Your task to perform on an android device: Search for vegetarian restaurants on Maps Image 0: 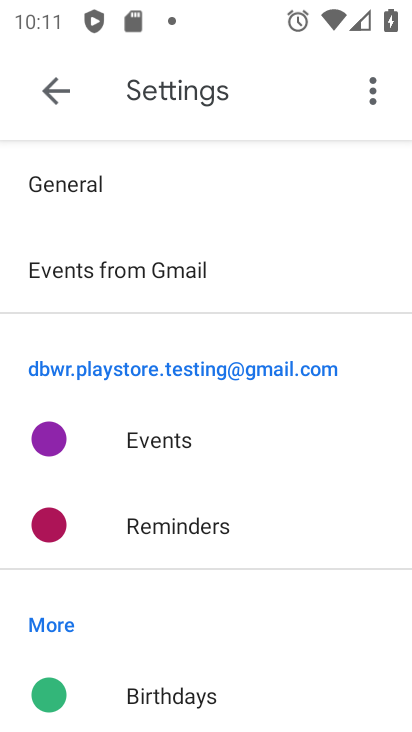
Step 0: press back button
Your task to perform on an android device: Search for vegetarian restaurants on Maps Image 1: 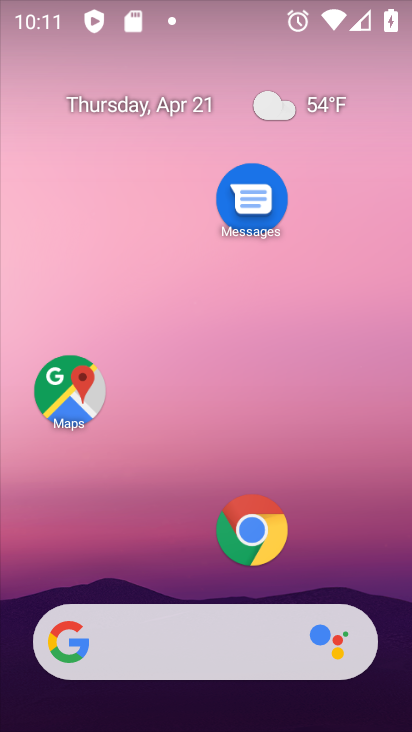
Step 1: click (64, 398)
Your task to perform on an android device: Search for vegetarian restaurants on Maps Image 2: 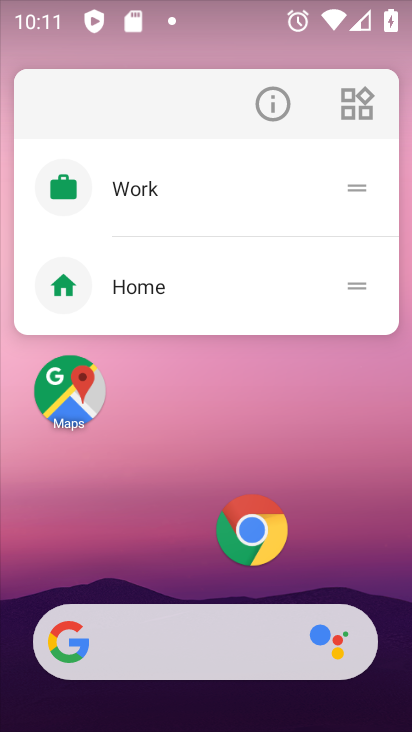
Step 2: click (64, 408)
Your task to perform on an android device: Search for vegetarian restaurants on Maps Image 3: 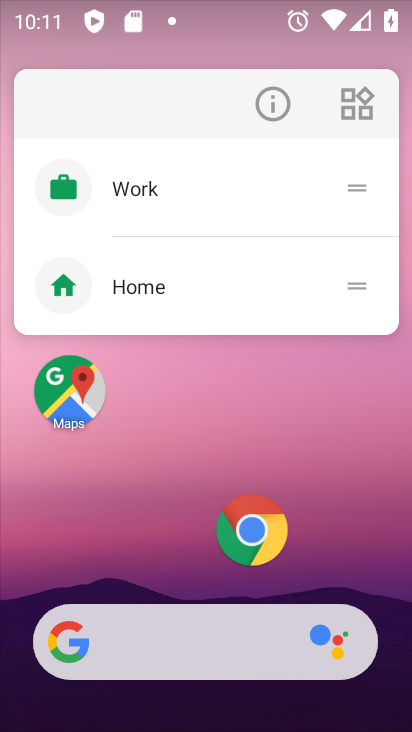
Step 3: click (82, 401)
Your task to perform on an android device: Search for vegetarian restaurants on Maps Image 4: 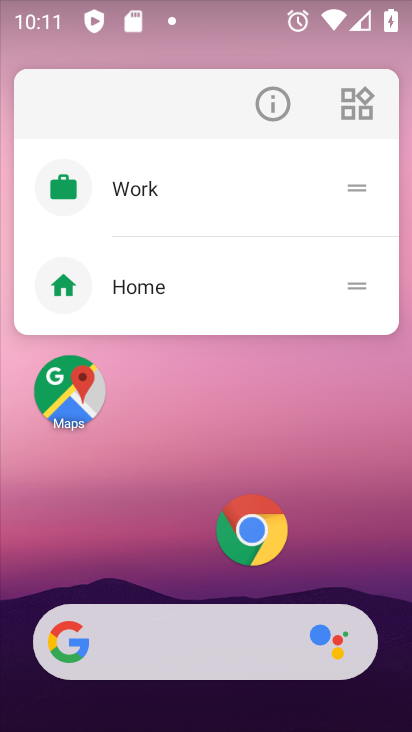
Step 4: click (76, 398)
Your task to perform on an android device: Search for vegetarian restaurants on Maps Image 5: 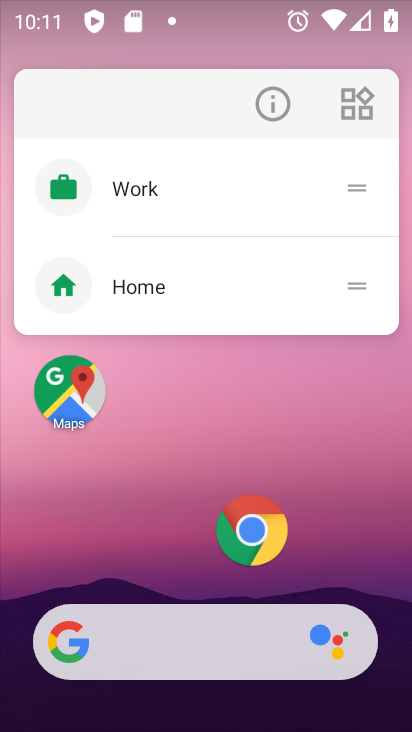
Step 5: click (82, 392)
Your task to perform on an android device: Search for vegetarian restaurants on Maps Image 6: 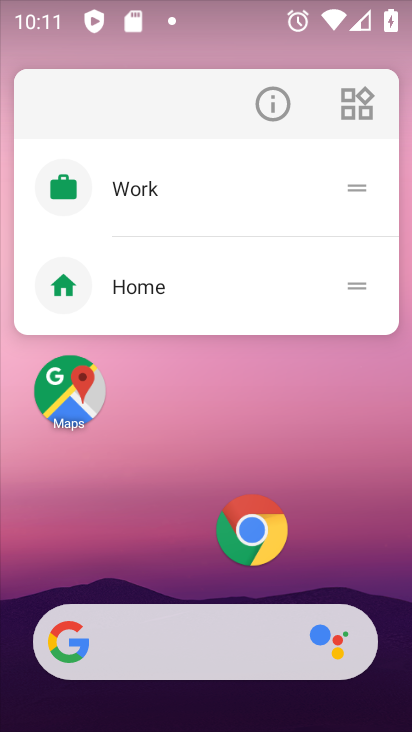
Step 6: click (84, 390)
Your task to perform on an android device: Search for vegetarian restaurants on Maps Image 7: 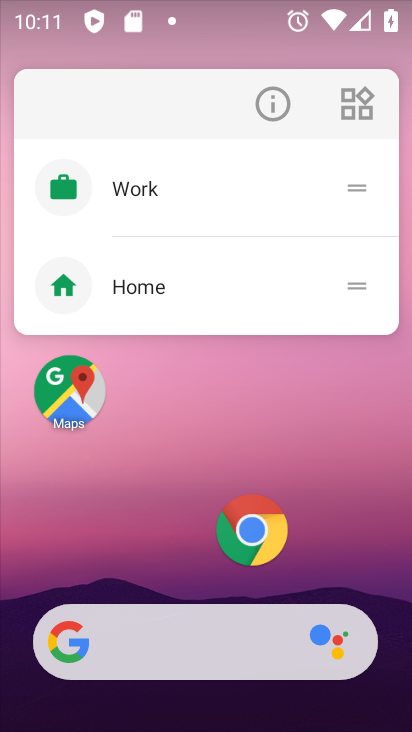
Step 7: drag from (135, 581) to (349, 4)
Your task to perform on an android device: Search for vegetarian restaurants on Maps Image 8: 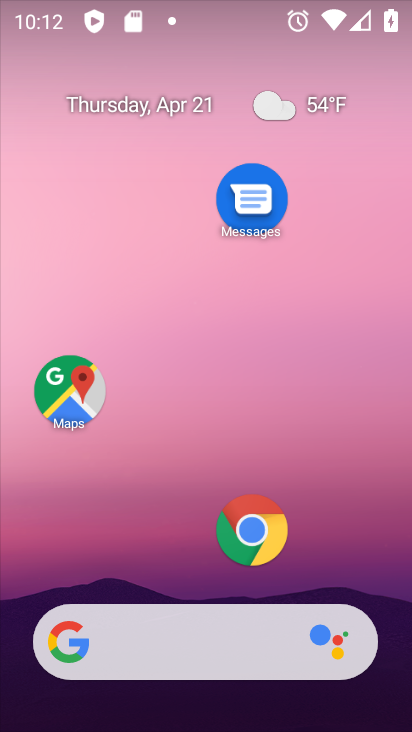
Step 8: drag from (142, 599) to (224, 83)
Your task to perform on an android device: Search for vegetarian restaurants on Maps Image 9: 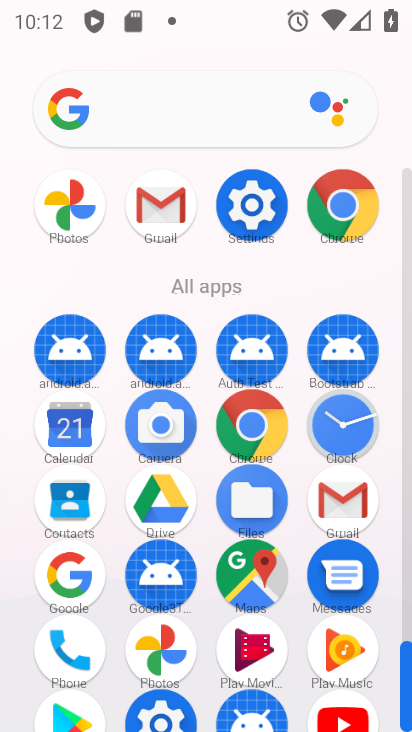
Step 9: click (270, 566)
Your task to perform on an android device: Search for vegetarian restaurants on Maps Image 10: 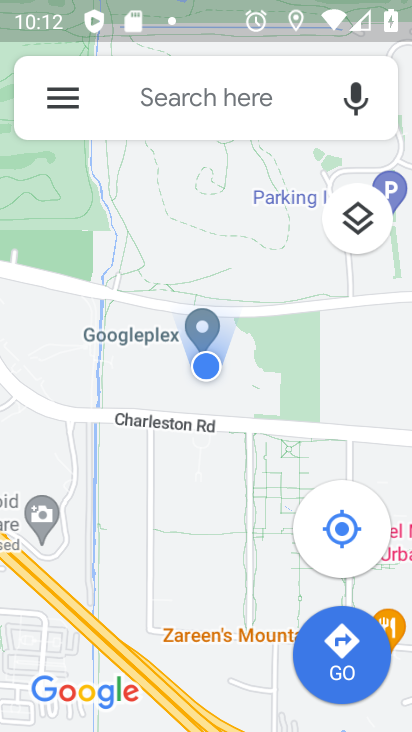
Step 10: click (163, 107)
Your task to perform on an android device: Search for vegetarian restaurants on Maps Image 11: 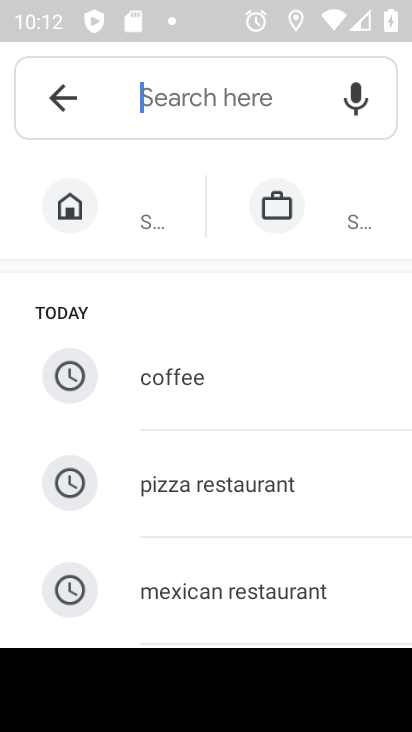
Step 11: type "vegetarian restaurants"
Your task to perform on an android device: Search for vegetarian restaurants on Maps Image 12: 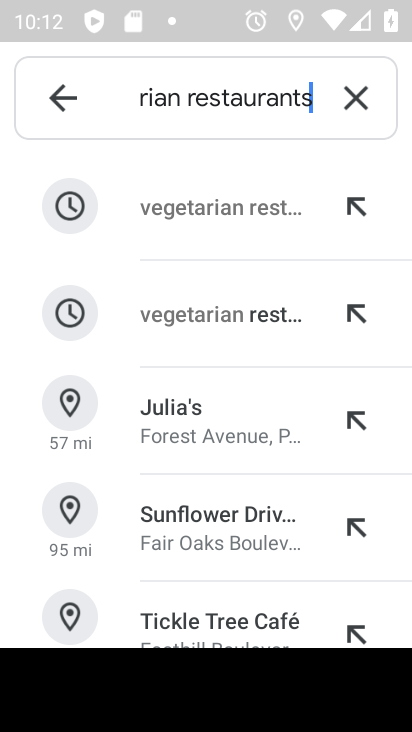
Step 12: click (275, 226)
Your task to perform on an android device: Search for vegetarian restaurants on Maps Image 13: 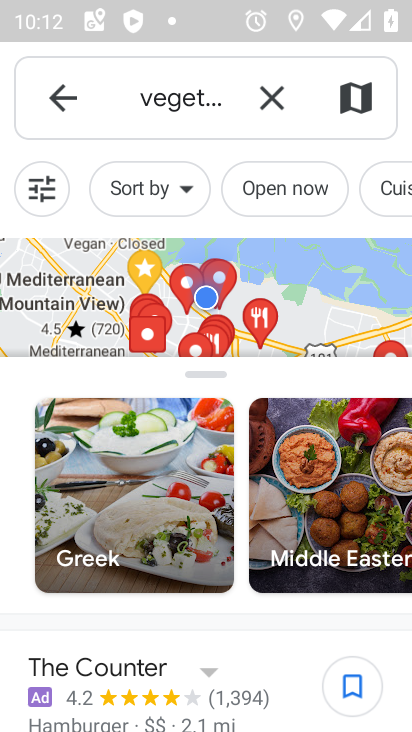
Step 13: task complete